Your task to perform on an android device: What's the weather going to be this weekend? Image 0: 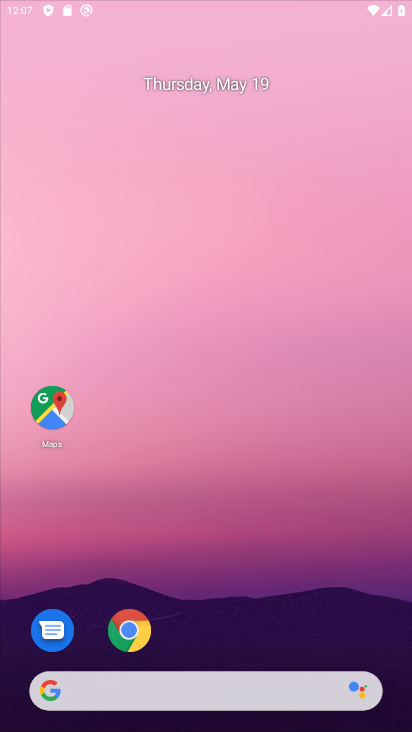
Step 0: click (324, 95)
Your task to perform on an android device: What's the weather going to be this weekend? Image 1: 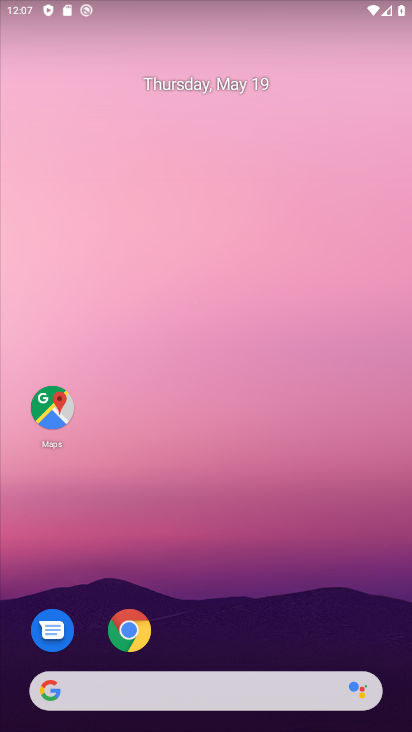
Step 1: click (248, 125)
Your task to perform on an android device: What's the weather going to be this weekend? Image 2: 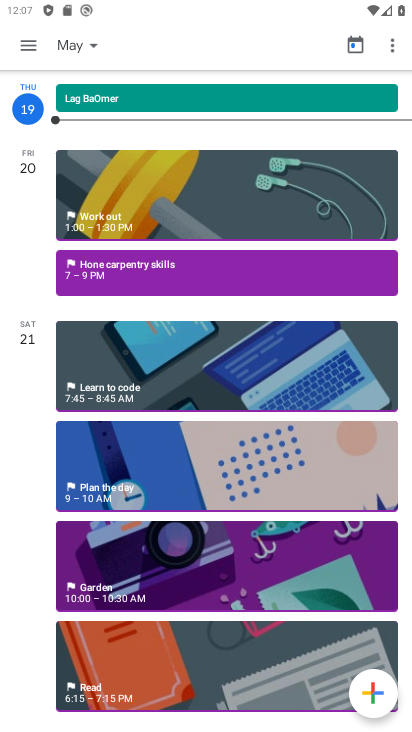
Step 2: click (27, 55)
Your task to perform on an android device: What's the weather going to be this weekend? Image 3: 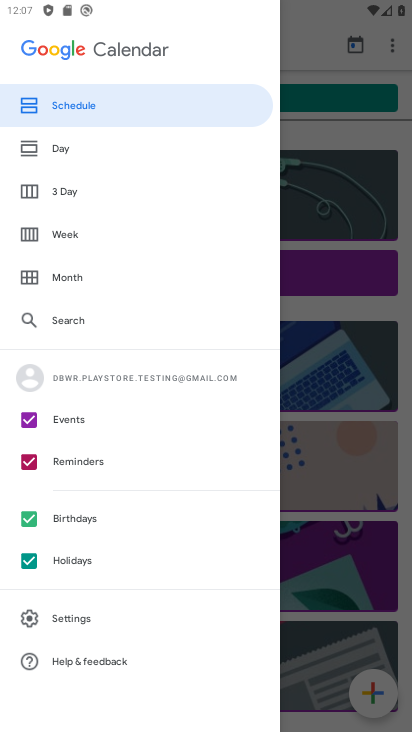
Step 3: drag from (165, 562) to (218, 179)
Your task to perform on an android device: What's the weather going to be this weekend? Image 4: 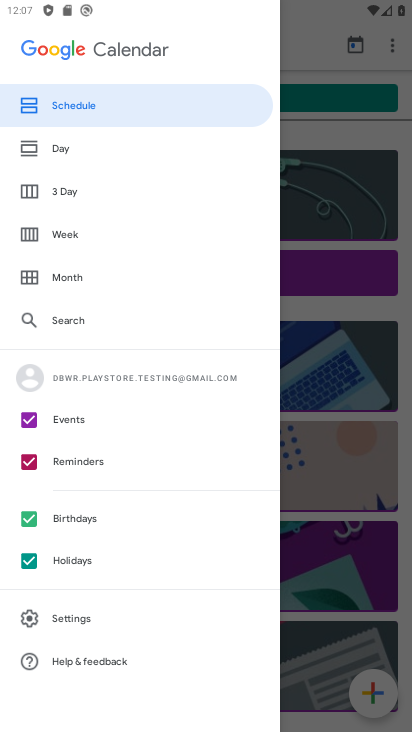
Step 4: press home button
Your task to perform on an android device: What's the weather going to be this weekend? Image 5: 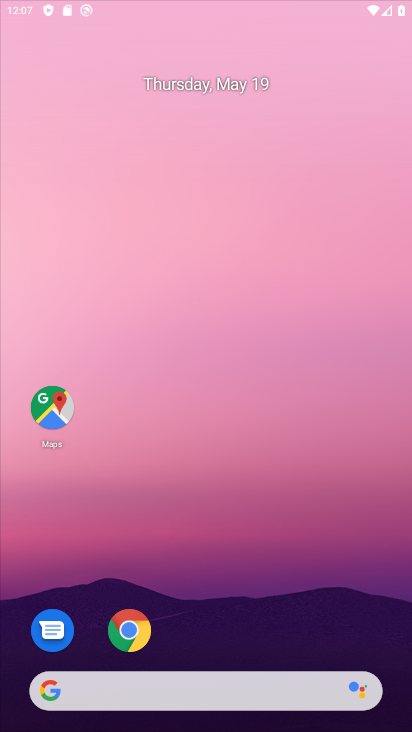
Step 5: drag from (143, 590) to (201, 148)
Your task to perform on an android device: What's the weather going to be this weekend? Image 6: 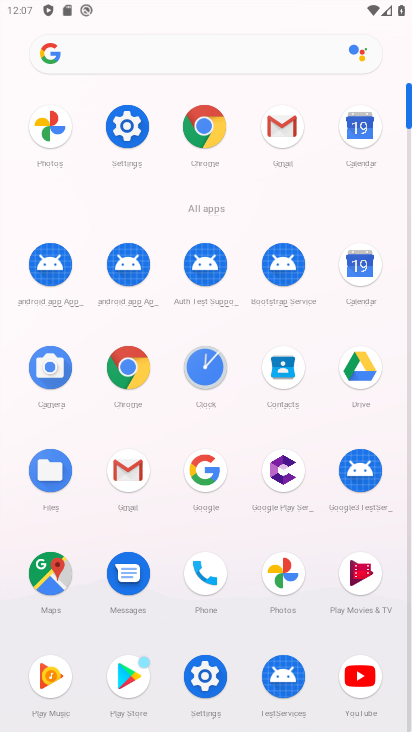
Step 6: click (177, 52)
Your task to perform on an android device: What's the weather going to be this weekend? Image 7: 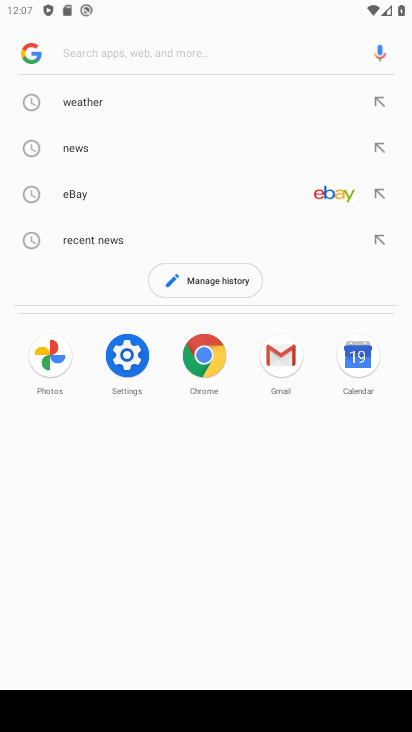
Step 7: click (99, 47)
Your task to perform on an android device: What's the weather going to be this weekend? Image 8: 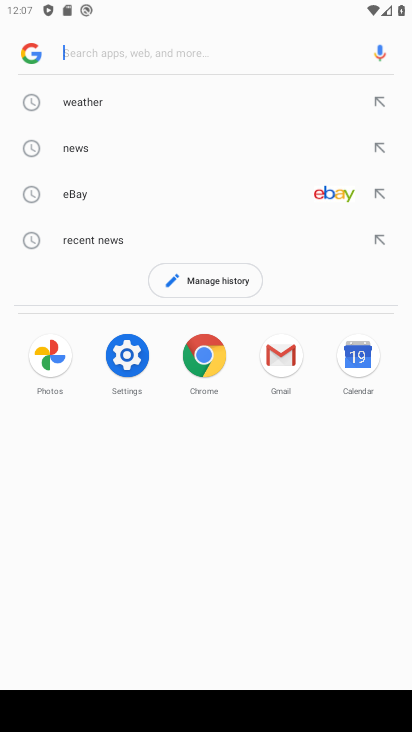
Step 8: click (100, 53)
Your task to perform on an android device: What's the weather going to be this weekend? Image 9: 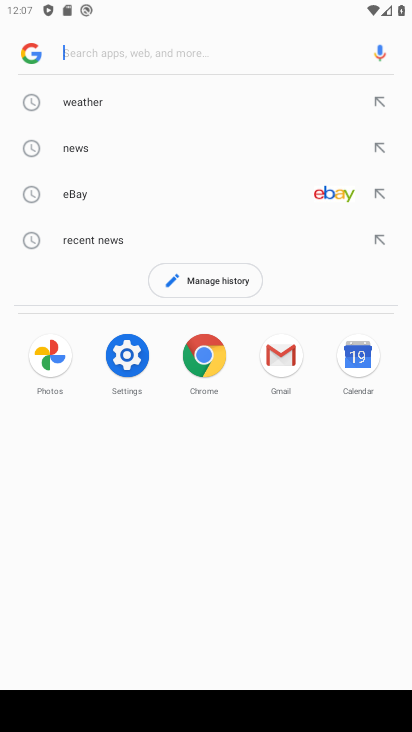
Step 9: type "weather going to be this weekend?"
Your task to perform on an android device: What's the weather going to be this weekend? Image 10: 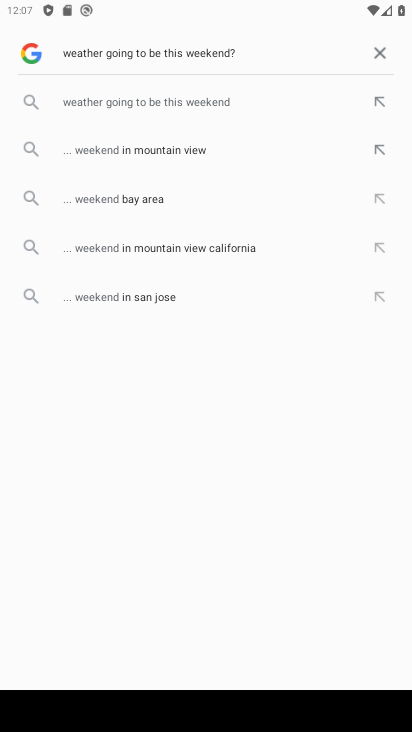
Step 10: click (113, 108)
Your task to perform on an android device: What's the weather going to be this weekend? Image 11: 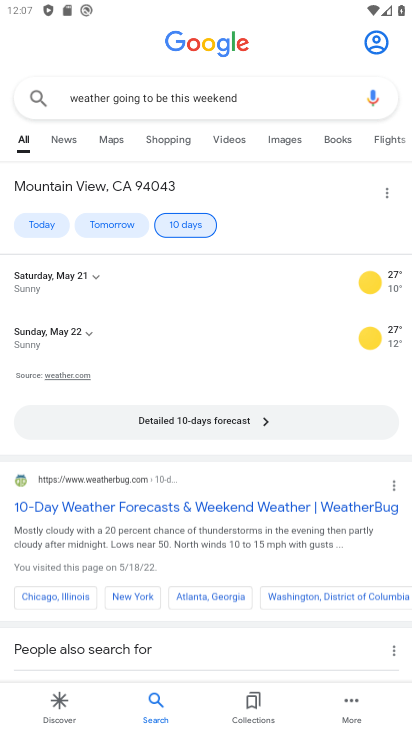
Step 11: task complete